Your task to perform on an android device: open a new tab in the chrome app Image 0: 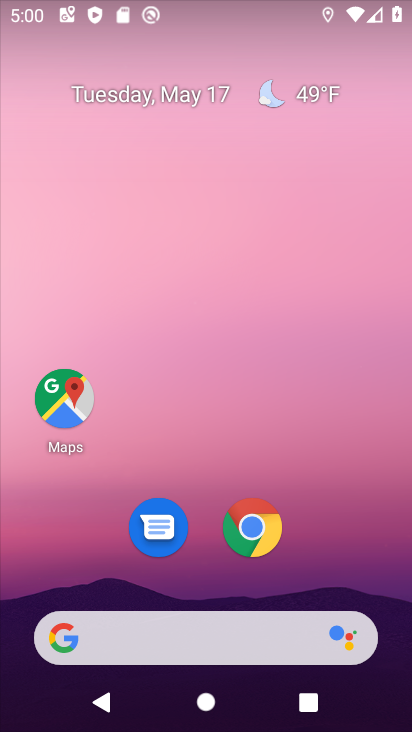
Step 0: drag from (331, 532) to (274, 9)
Your task to perform on an android device: open a new tab in the chrome app Image 1: 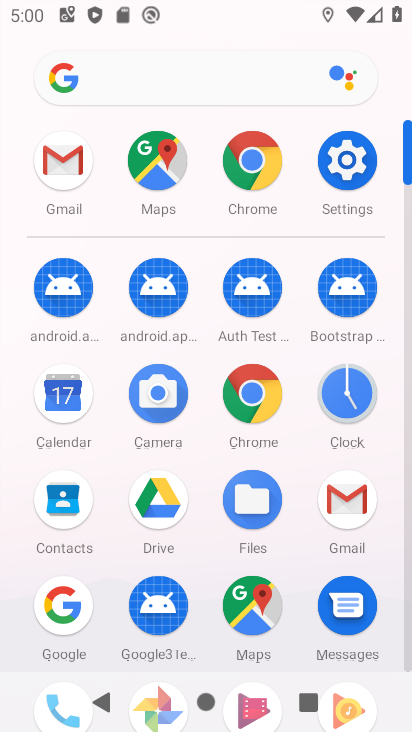
Step 1: drag from (26, 530) to (24, 171)
Your task to perform on an android device: open a new tab in the chrome app Image 2: 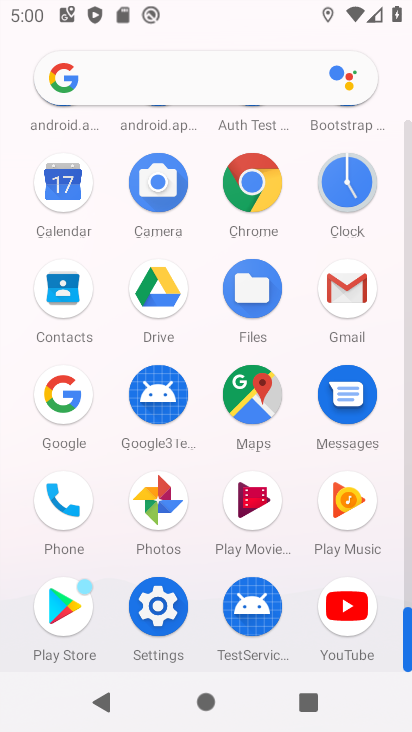
Step 2: click (253, 181)
Your task to perform on an android device: open a new tab in the chrome app Image 3: 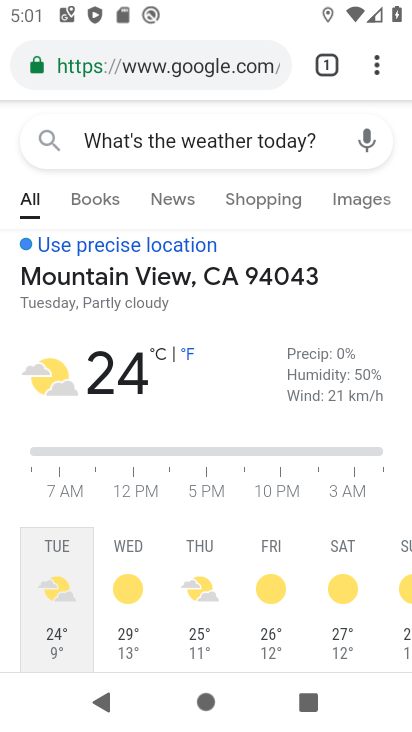
Step 3: task complete